Your task to perform on an android device: change the clock style Image 0: 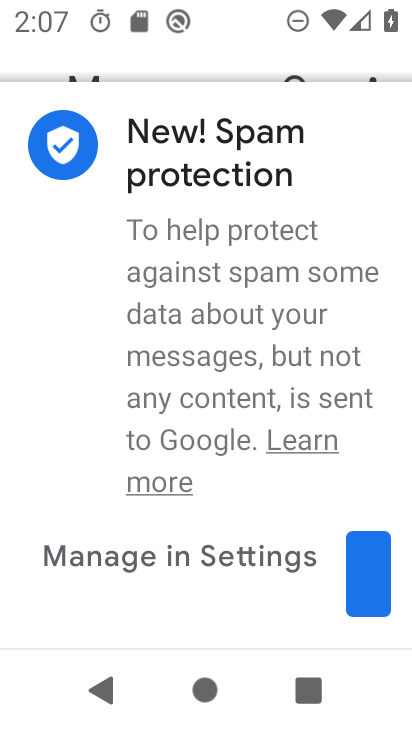
Step 0: press home button
Your task to perform on an android device: change the clock style Image 1: 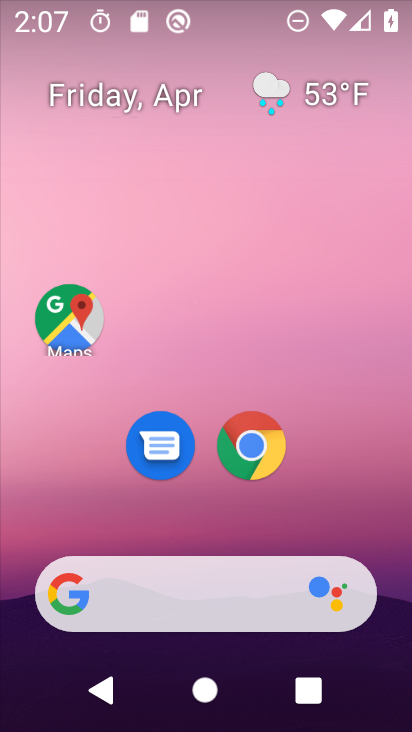
Step 1: drag from (373, 516) to (383, 139)
Your task to perform on an android device: change the clock style Image 2: 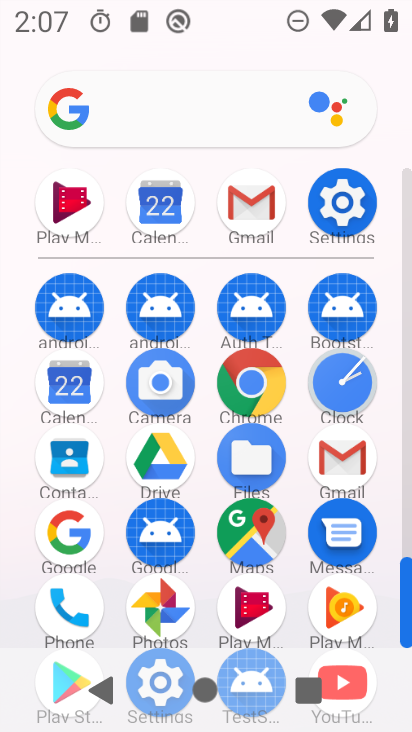
Step 2: click (344, 394)
Your task to perform on an android device: change the clock style Image 3: 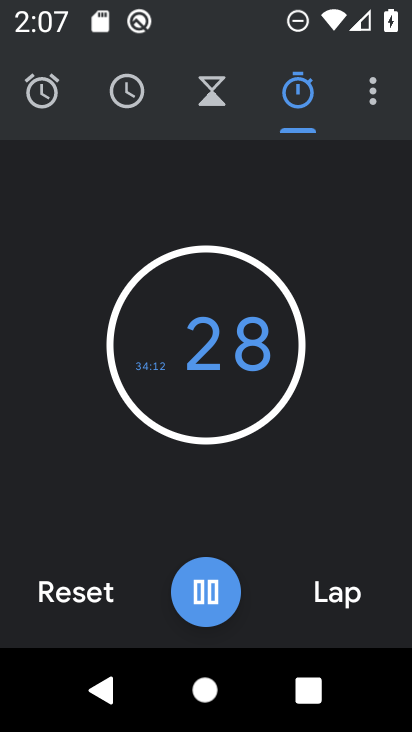
Step 3: click (376, 97)
Your task to perform on an android device: change the clock style Image 4: 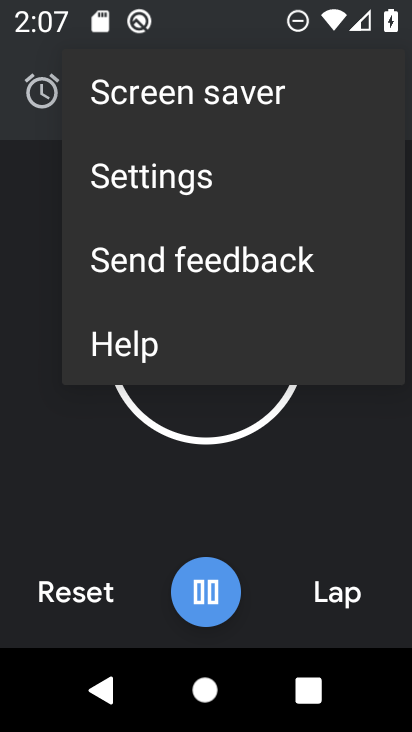
Step 4: click (255, 194)
Your task to perform on an android device: change the clock style Image 5: 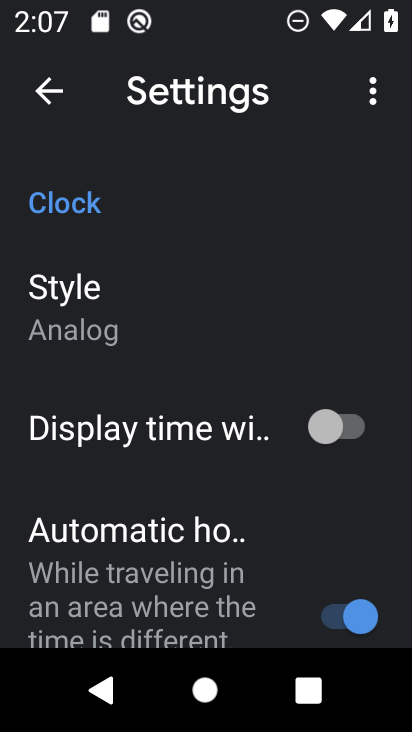
Step 5: drag from (281, 515) to (292, 327)
Your task to perform on an android device: change the clock style Image 6: 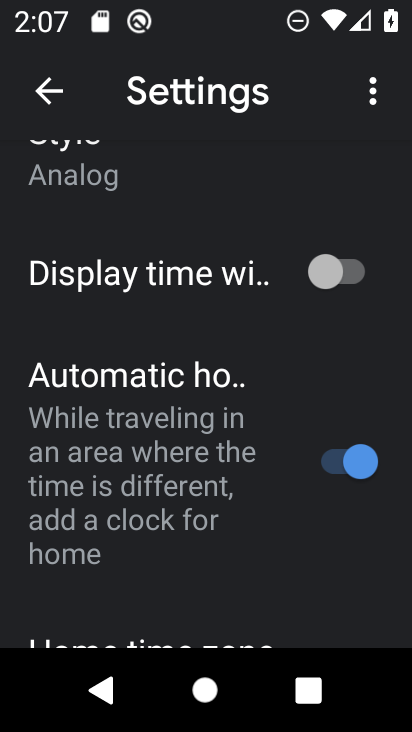
Step 6: drag from (273, 538) to (280, 306)
Your task to perform on an android device: change the clock style Image 7: 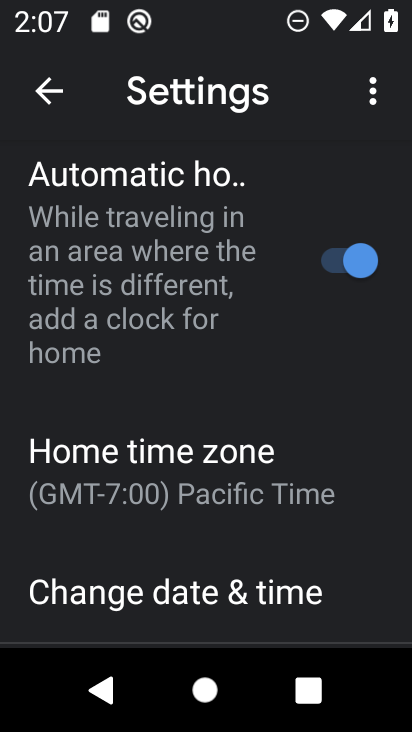
Step 7: drag from (274, 463) to (281, 313)
Your task to perform on an android device: change the clock style Image 8: 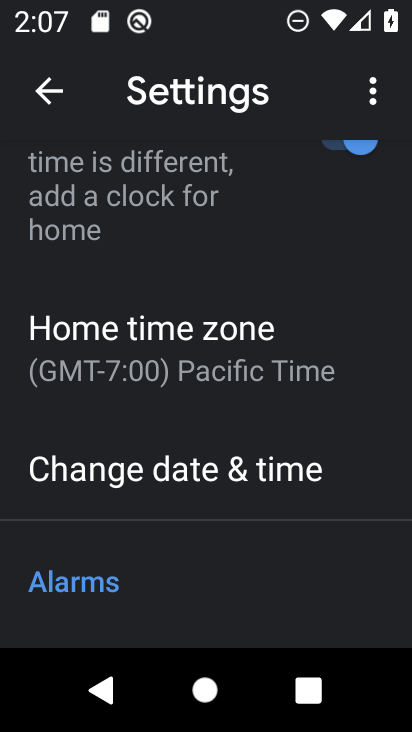
Step 8: drag from (276, 465) to (291, 255)
Your task to perform on an android device: change the clock style Image 9: 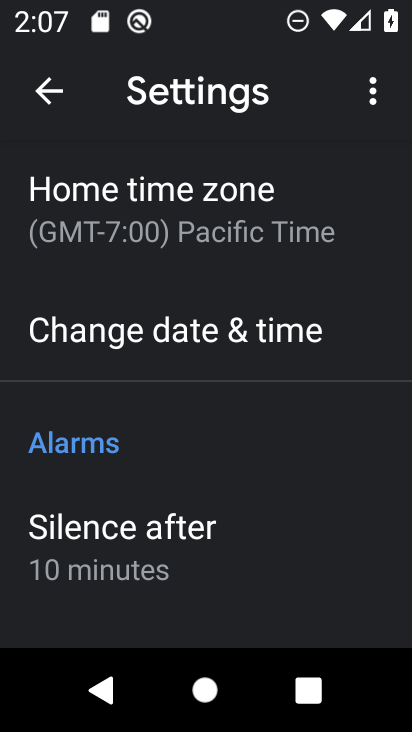
Step 9: drag from (359, 466) to (401, 354)
Your task to perform on an android device: change the clock style Image 10: 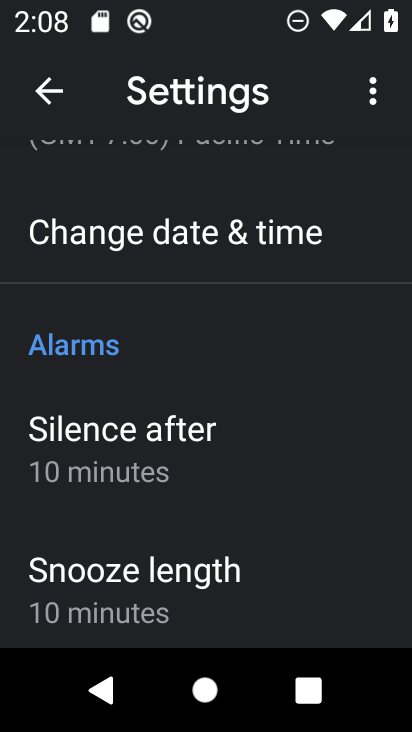
Step 10: drag from (339, 566) to (370, 304)
Your task to perform on an android device: change the clock style Image 11: 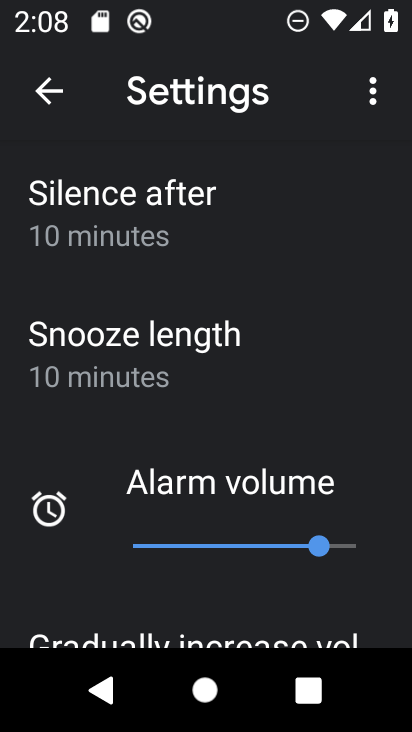
Step 11: drag from (370, 318) to (335, 506)
Your task to perform on an android device: change the clock style Image 12: 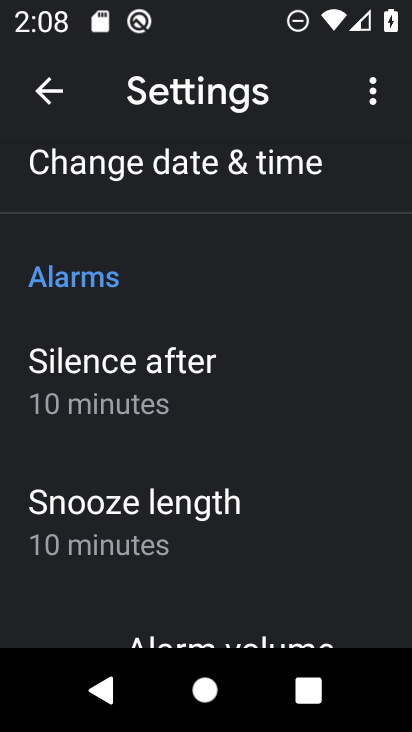
Step 12: drag from (357, 278) to (355, 456)
Your task to perform on an android device: change the clock style Image 13: 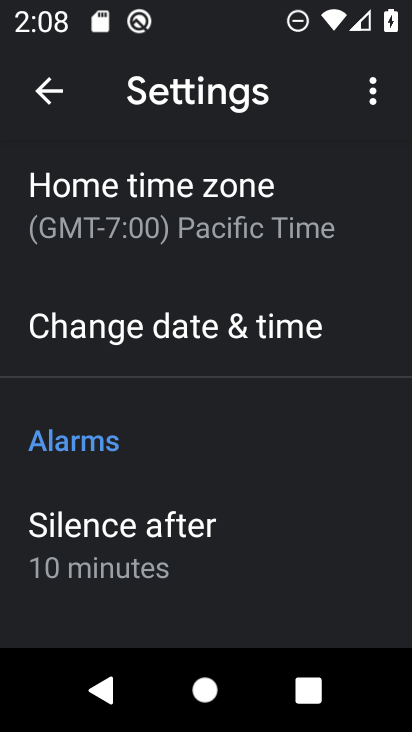
Step 13: drag from (370, 227) to (361, 418)
Your task to perform on an android device: change the clock style Image 14: 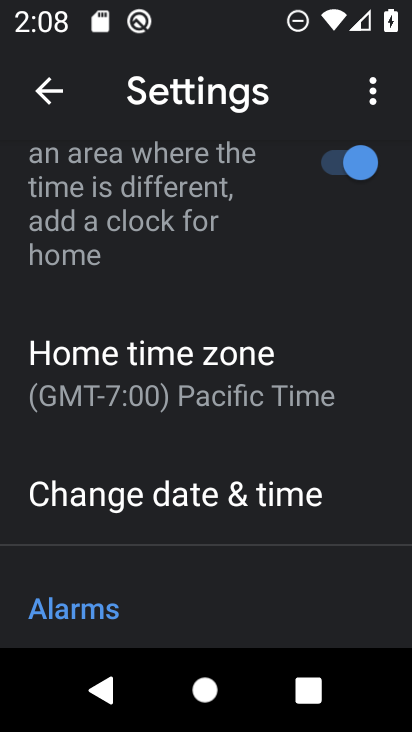
Step 14: drag from (377, 332) to (370, 437)
Your task to perform on an android device: change the clock style Image 15: 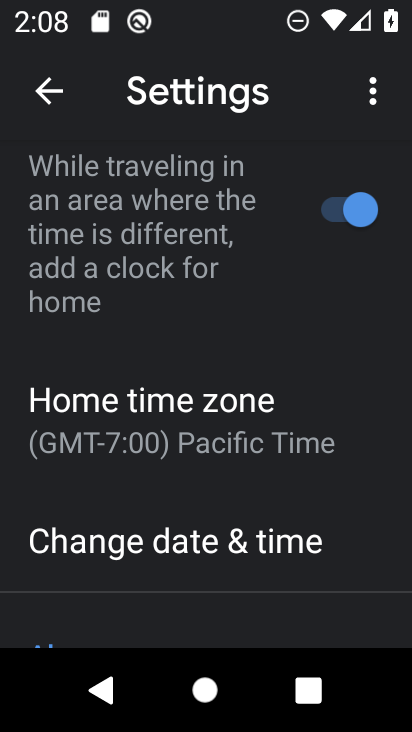
Step 15: drag from (290, 181) to (291, 429)
Your task to perform on an android device: change the clock style Image 16: 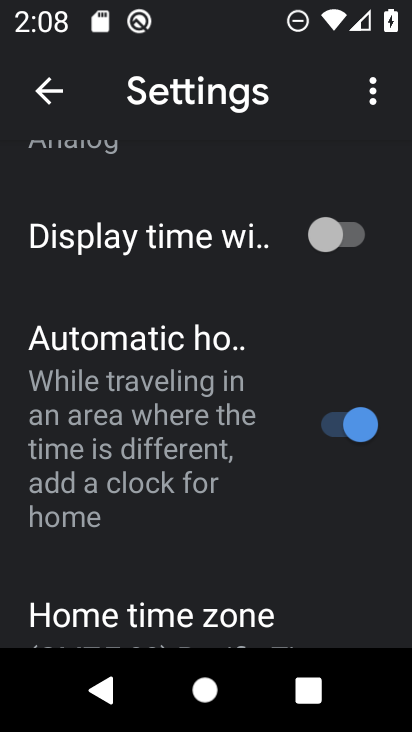
Step 16: drag from (287, 215) to (285, 380)
Your task to perform on an android device: change the clock style Image 17: 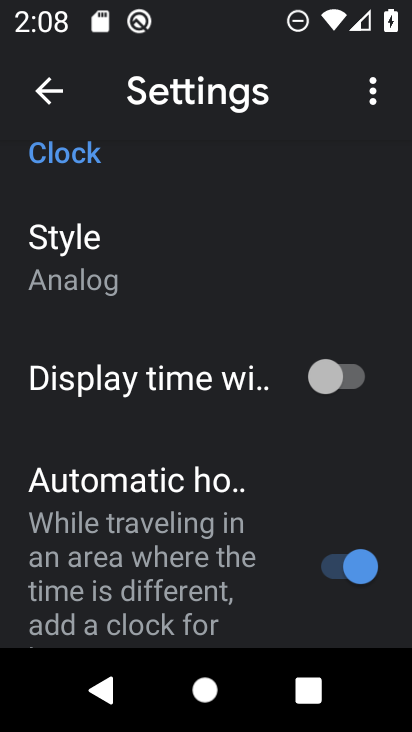
Step 17: click (74, 268)
Your task to perform on an android device: change the clock style Image 18: 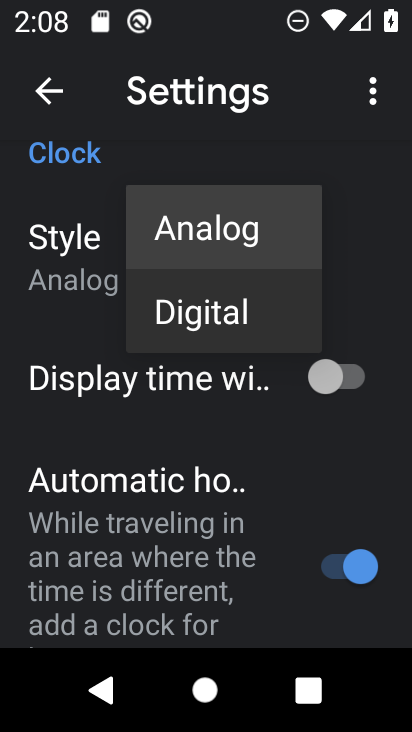
Step 18: click (212, 318)
Your task to perform on an android device: change the clock style Image 19: 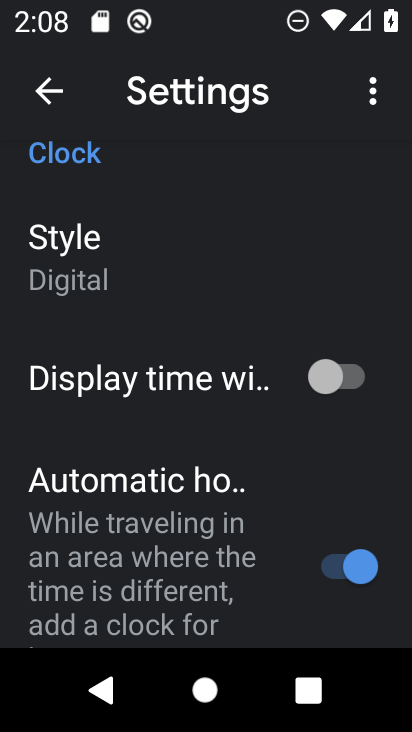
Step 19: task complete